Your task to perform on an android device: set default search engine in the chrome app Image 0: 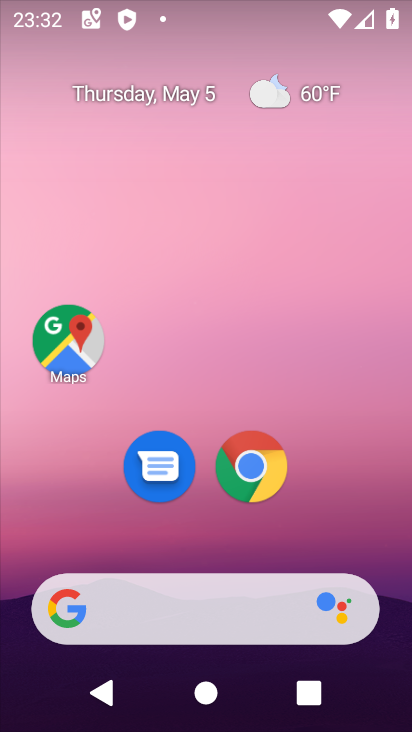
Step 0: click (242, 462)
Your task to perform on an android device: set default search engine in the chrome app Image 1: 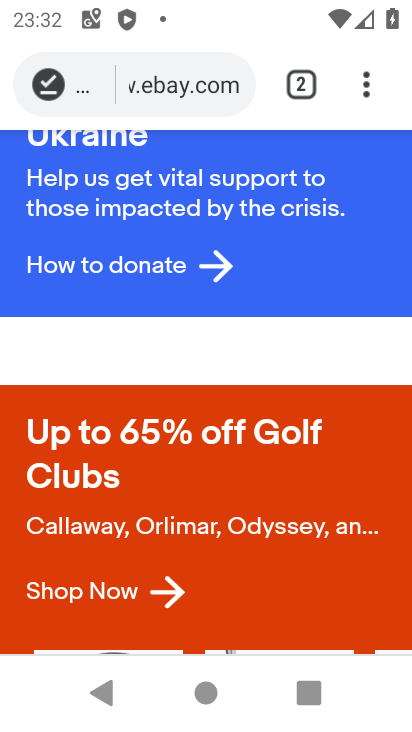
Step 1: click (369, 81)
Your task to perform on an android device: set default search engine in the chrome app Image 2: 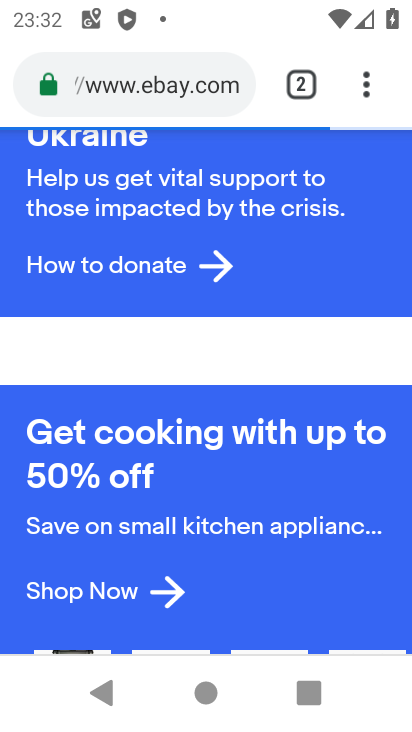
Step 2: click (368, 80)
Your task to perform on an android device: set default search engine in the chrome app Image 3: 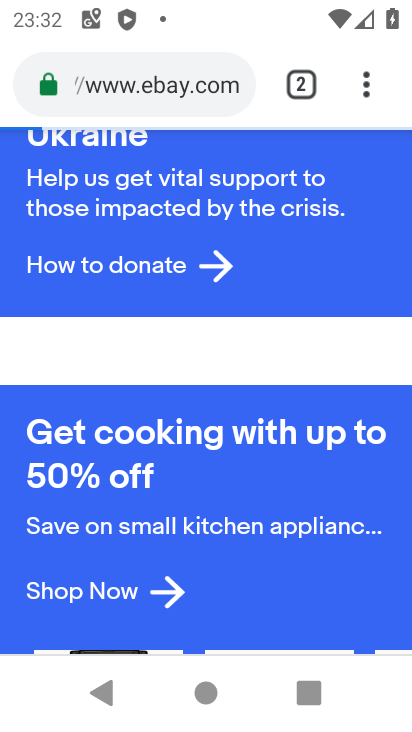
Step 3: click (368, 80)
Your task to perform on an android device: set default search engine in the chrome app Image 4: 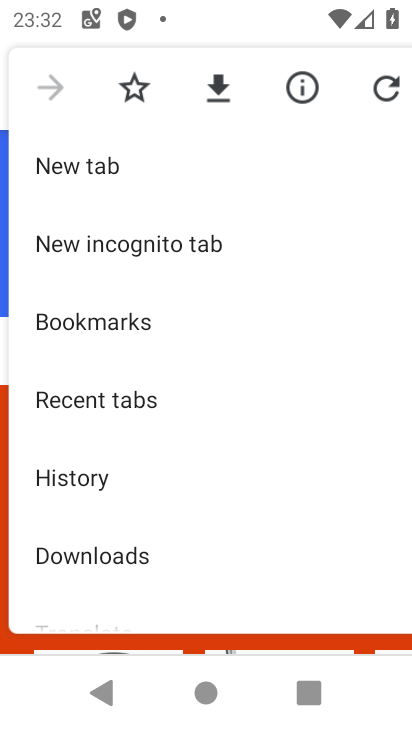
Step 4: drag from (101, 588) to (188, 292)
Your task to perform on an android device: set default search engine in the chrome app Image 5: 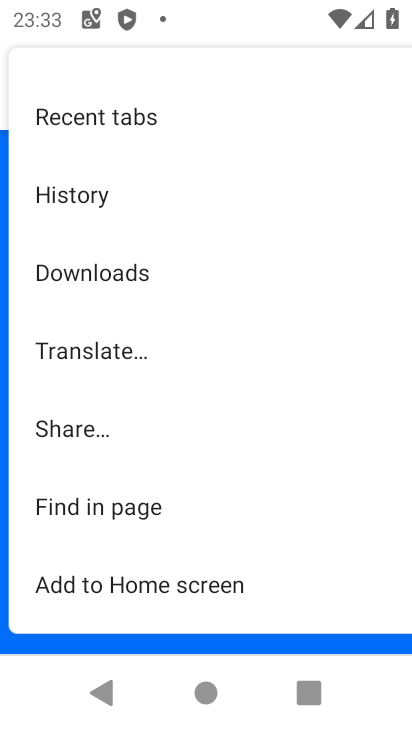
Step 5: drag from (74, 573) to (137, 203)
Your task to perform on an android device: set default search engine in the chrome app Image 6: 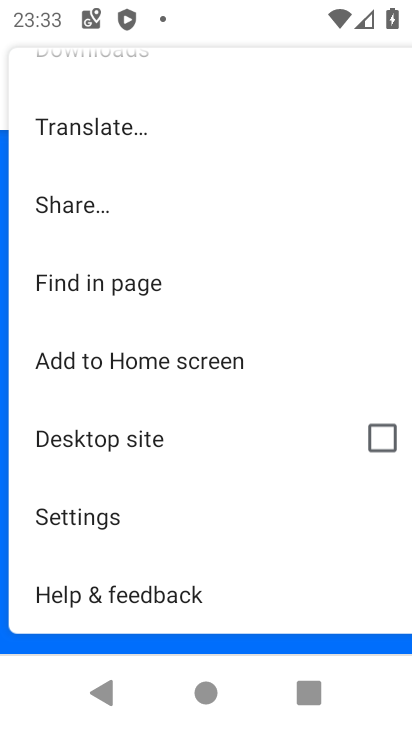
Step 6: click (59, 523)
Your task to perform on an android device: set default search engine in the chrome app Image 7: 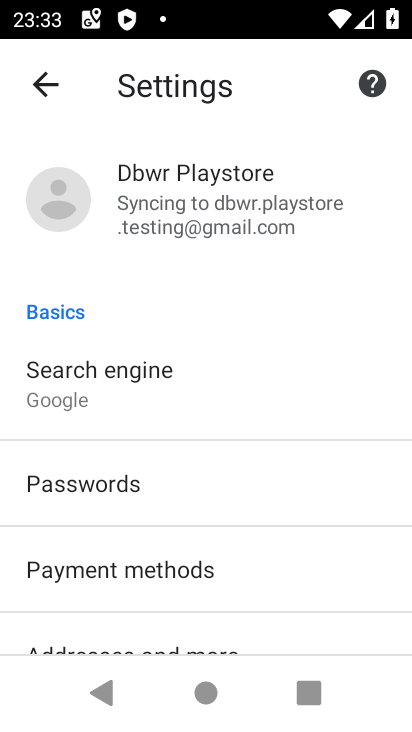
Step 7: click (108, 382)
Your task to perform on an android device: set default search engine in the chrome app Image 8: 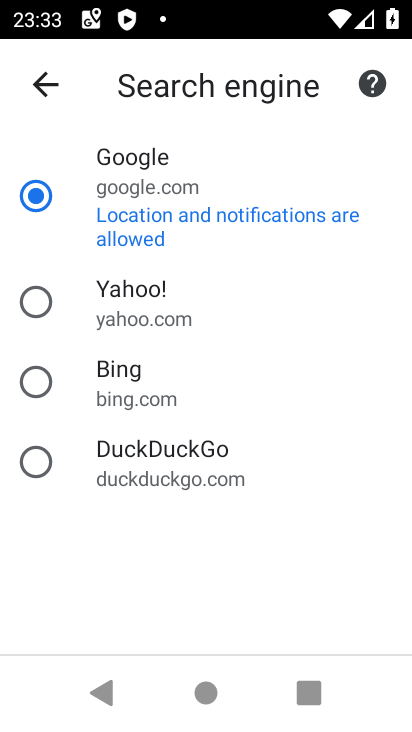
Step 8: task complete